Your task to perform on an android device: turn off sleep mode Image 0: 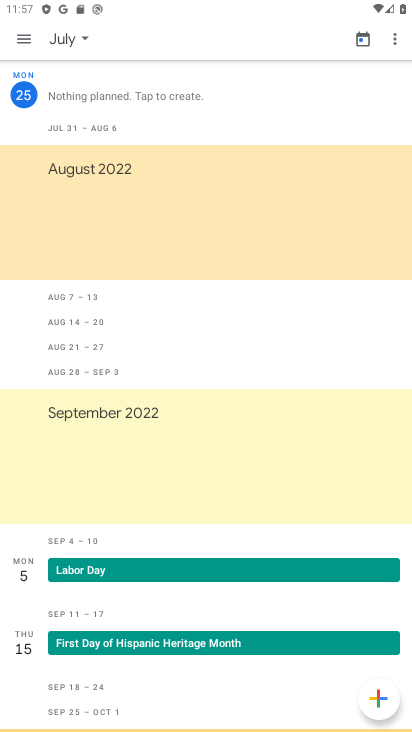
Step 0: press home button
Your task to perform on an android device: turn off sleep mode Image 1: 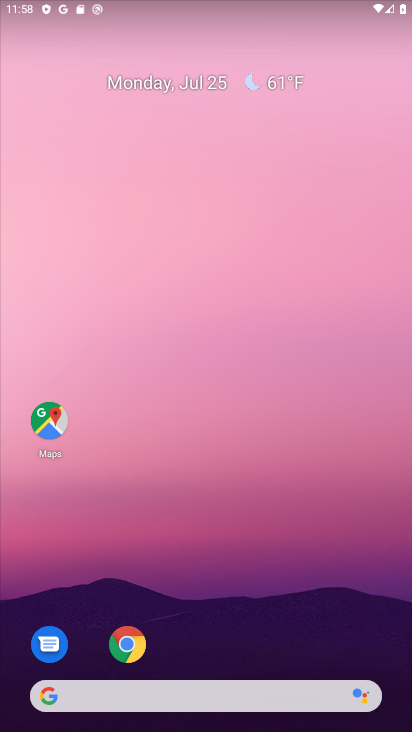
Step 1: drag from (320, 613) to (263, 71)
Your task to perform on an android device: turn off sleep mode Image 2: 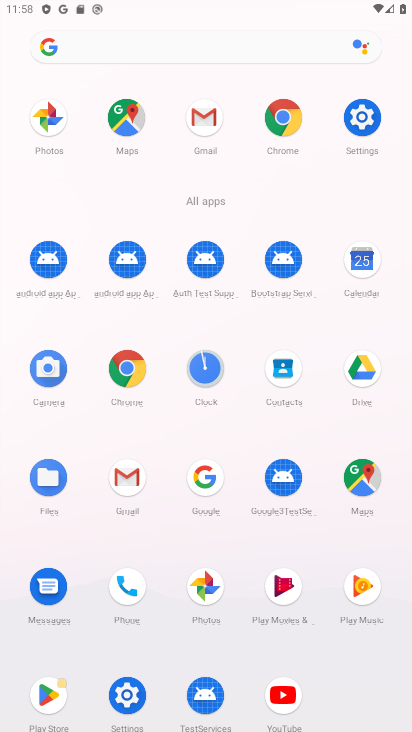
Step 2: click (128, 696)
Your task to perform on an android device: turn off sleep mode Image 3: 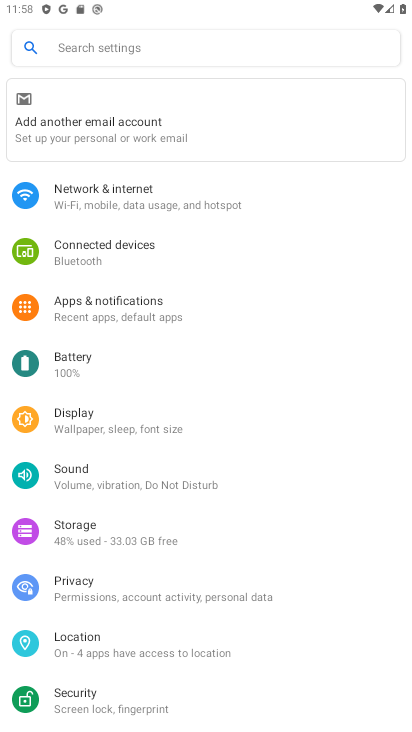
Step 3: click (158, 417)
Your task to perform on an android device: turn off sleep mode Image 4: 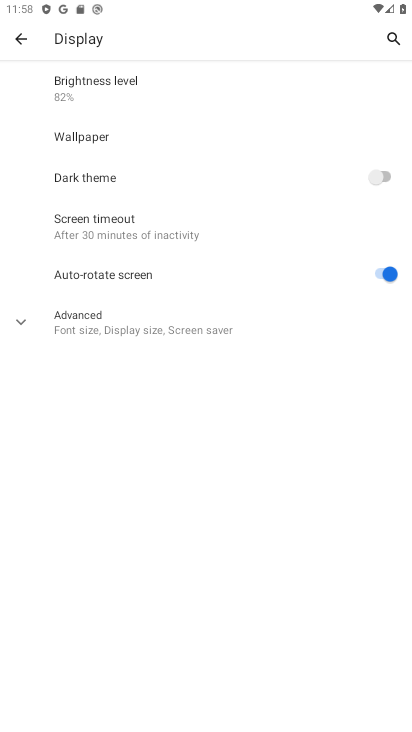
Step 4: click (159, 326)
Your task to perform on an android device: turn off sleep mode Image 5: 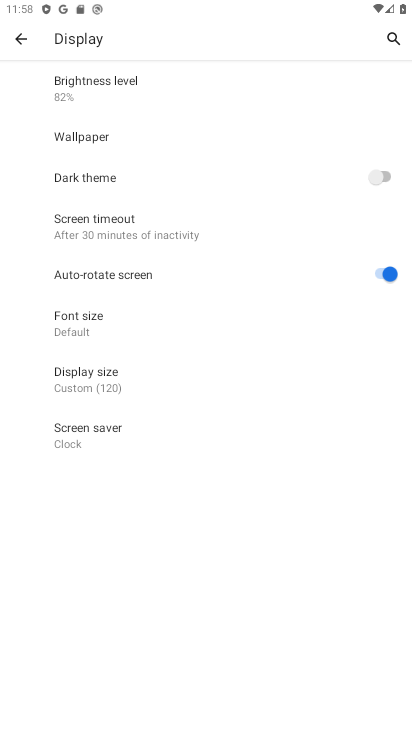
Step 5: task complete